Your task to perform on an android device: toggle javascript in the chrome app Image 0: 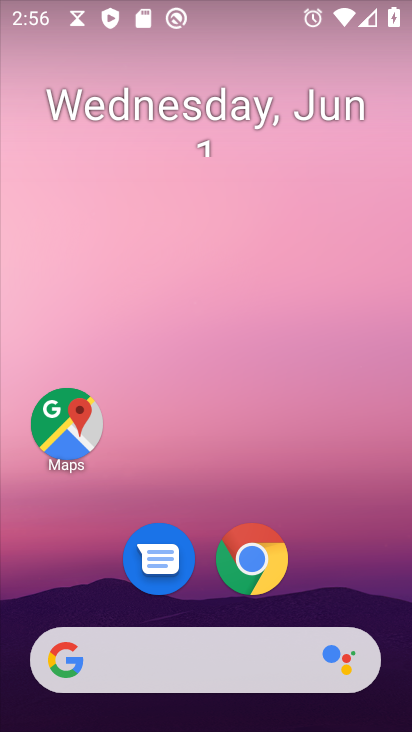
Step 0: click (265, 548)
Your task to perform on an android device: toggle javascript in the chrome app Image 1: 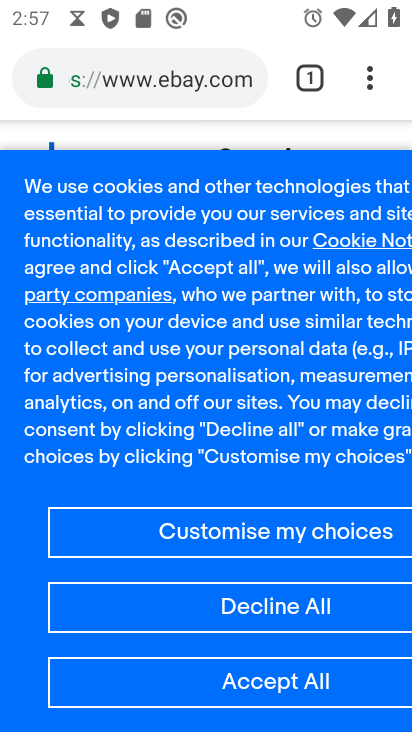
Step 1: click (378, 80)
Your task to perform on an android device: toggle javascript in the chrome app Image 2: 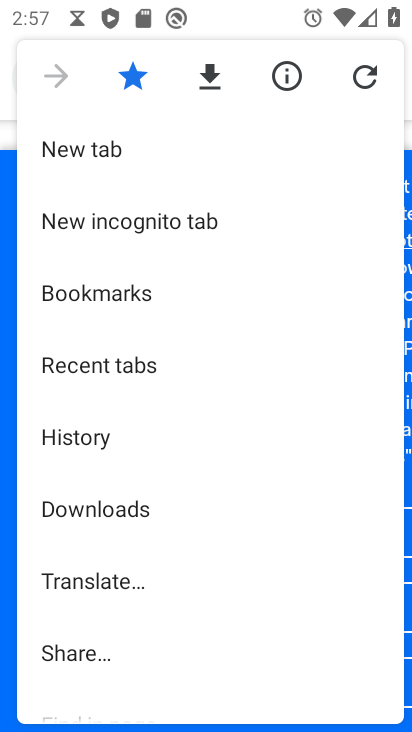
Step 2: drag from (165, 644) to (120, 260)
Your task to perform on an android device: toggle javascript in the chrome app Image 3: 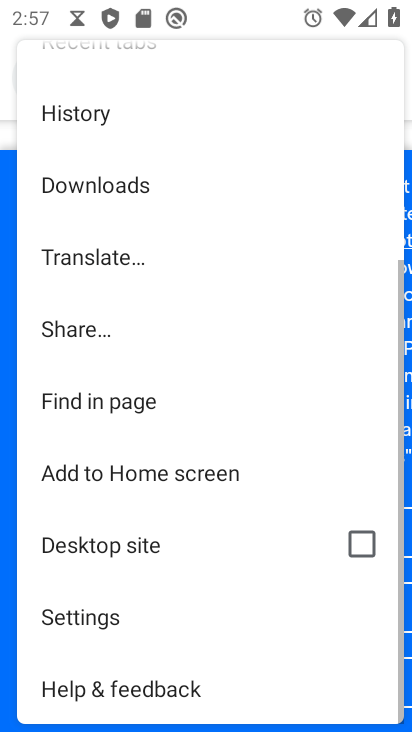
Step 3: click (108, 617)
Your task to perform on an android device: toggle javascript in the chrome app Image 4: 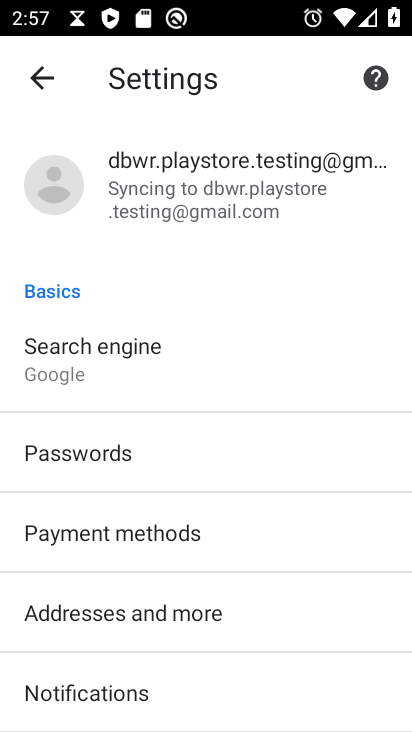
Step 4: drag from (218, 661) to (333, 97)
Your task to perform on an android device: toggle javascript in the chrome app Image 5: 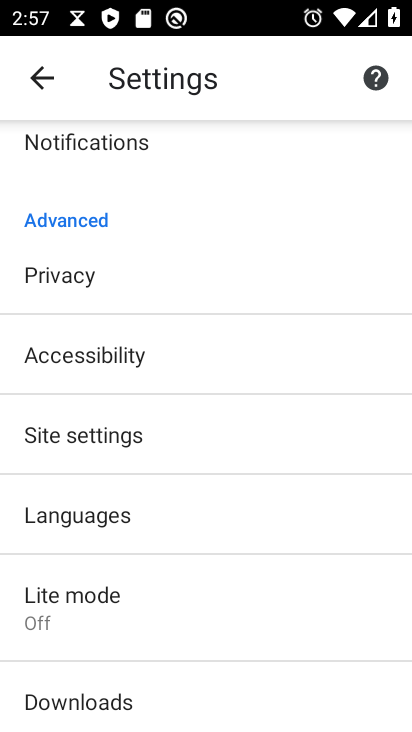
Step 5: click (114, 442)
Your task to perform on an android device: toggle javascript in the chrome app Image 6: 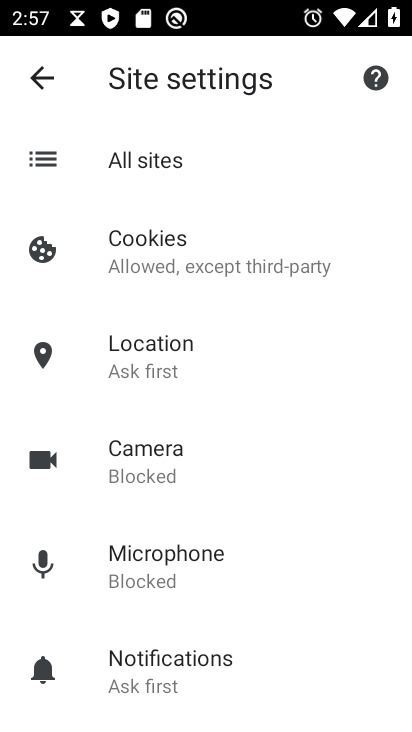
Step 6: drag from (207, 661) to (196, 172)
Your task to perform on an android device: toggle javascript in the chrome app Image 7: 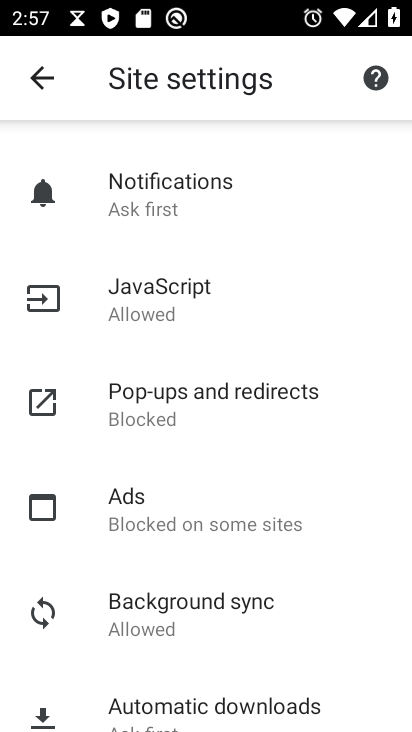
Step 7: click (158, 302)
Your task to perform on an android device: toggle javascript in the chrome app Image 8: 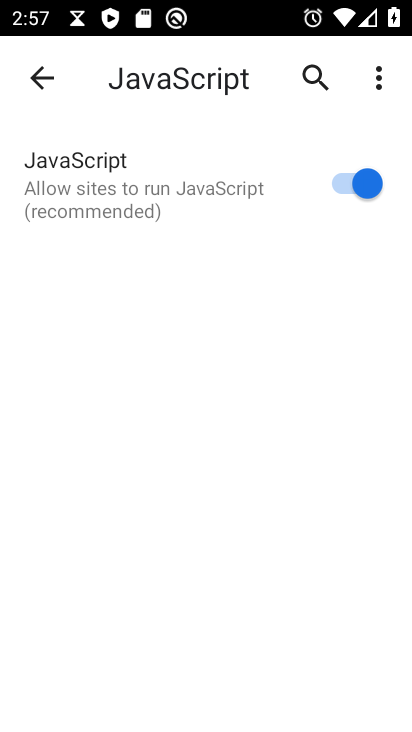
Step 8: click (360, 198)
Your task to perform on an android device: toggle javascript in the chrome app Image 9: 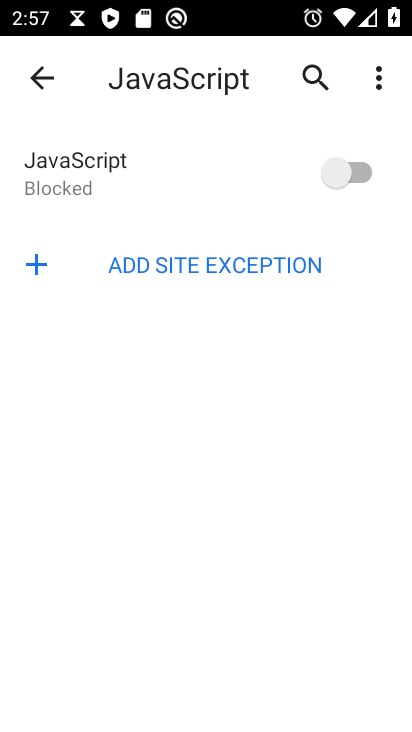
Step 9: task complete